Your task to perform on an android device: change the clock display to digital Image 0: 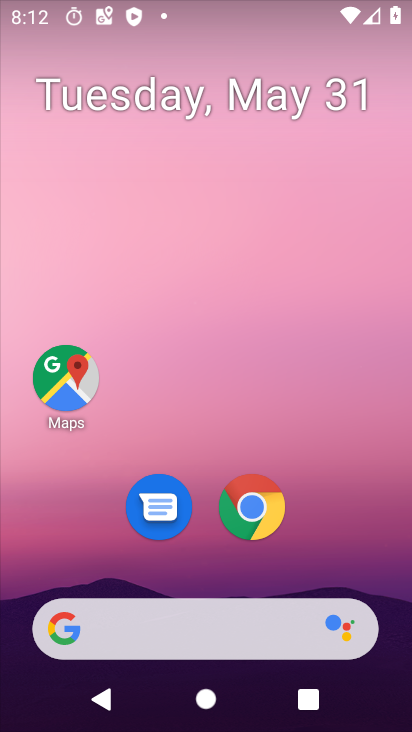
Step 0: drag from (371, 577) to (400, 24)
Your task to perform on an android device: change the clock display to digital Image 1: 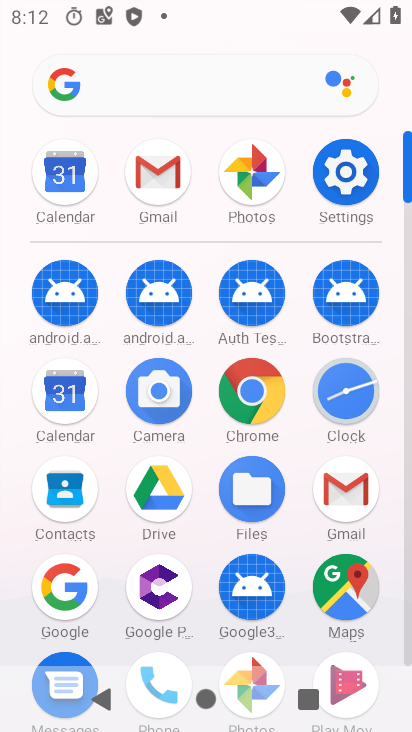
Step 1: click (334, 397)
Your task to perform on an android device: change the clock display to digital Image 2: 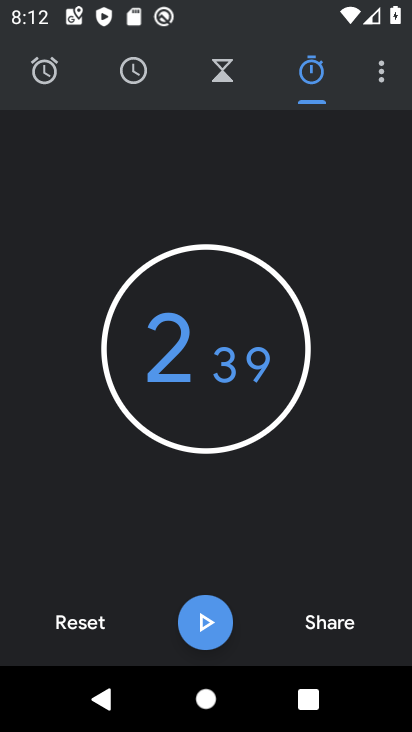
Step 2: click (382, 74)
Your task to perform on an android device: change the clock display to digital Image 3: 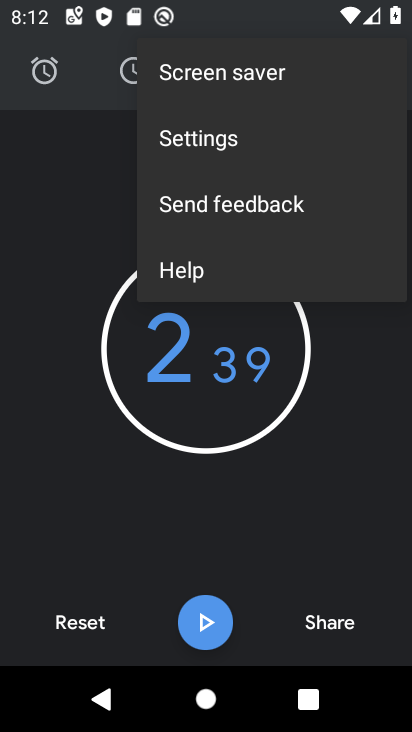
Step 3: click (211, 149)
Your task to perform on an android device: change the clock display to digital Image 4: 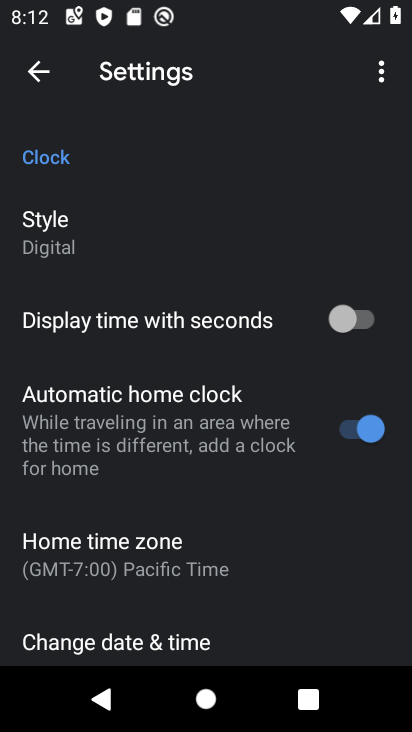
Step 4: task complete